Your task to perform on an android device: Open the Play Movies app and select the watchlist tab. Image 0: 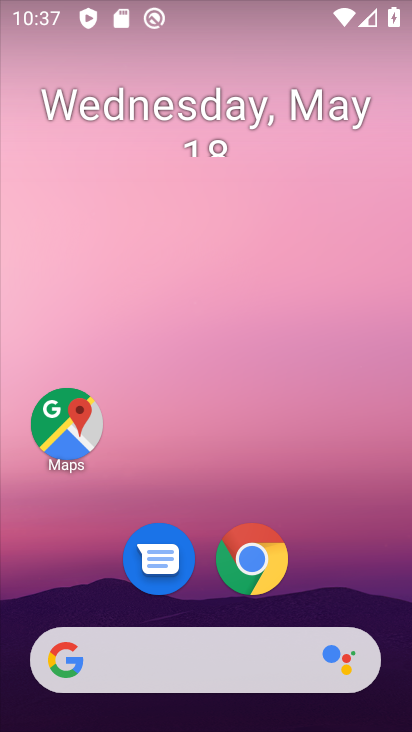
Step 0: drag from (197, 594) to (262, 7)
Your task to perform on an android device: Open the Play Movies app and select the watchlist tab. Image 1: 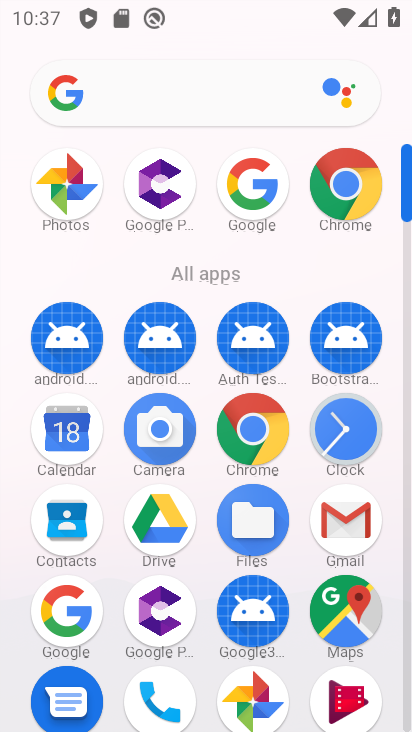
Step 1: drag from (196, 400) to (216, 257)
Your task to perform on an android device: Open the Play Movies app and select the watchlist tab. Image 2: 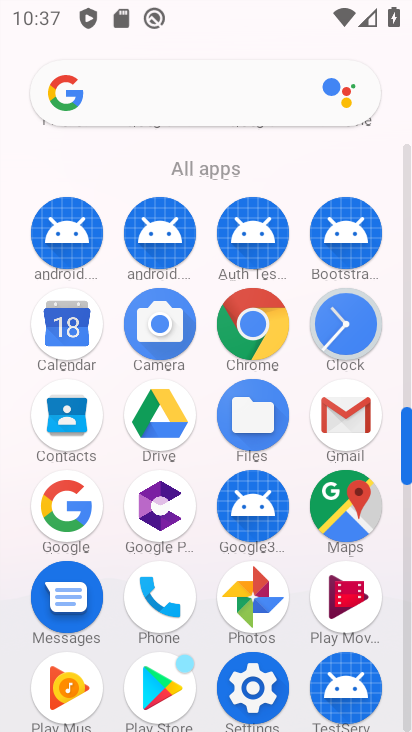
Step 2: click (349, 601)
Your task to perform on an android device: Open the Play Movies app and select the watchlist tab. Image 3: 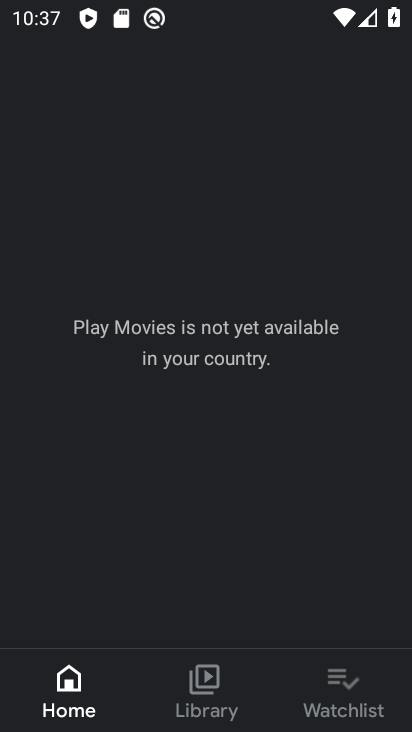
Step 3: click (329, 677)
Your task to perform on an android device: Open the Play Movies app and select the watchlist tab. Image 4: 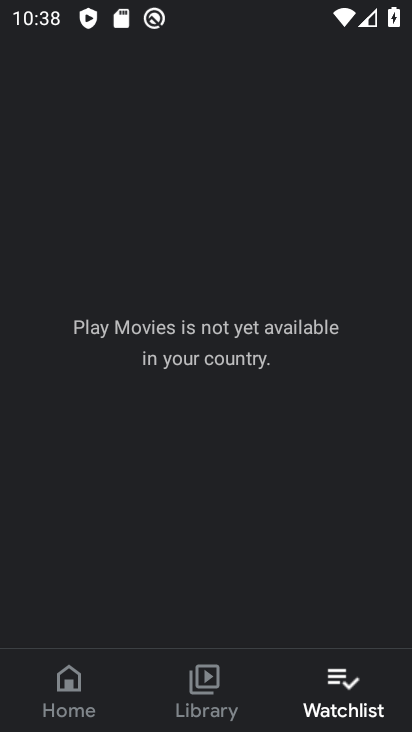
Step 4: task complete